Your task to perform on an android device: turn on wifi Image 0: 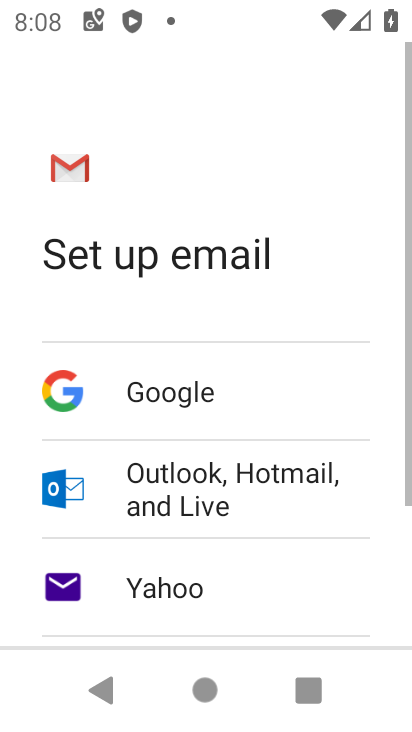
Step 0: press home button
Your task to perform on an android device: turn on wifi Image 1: 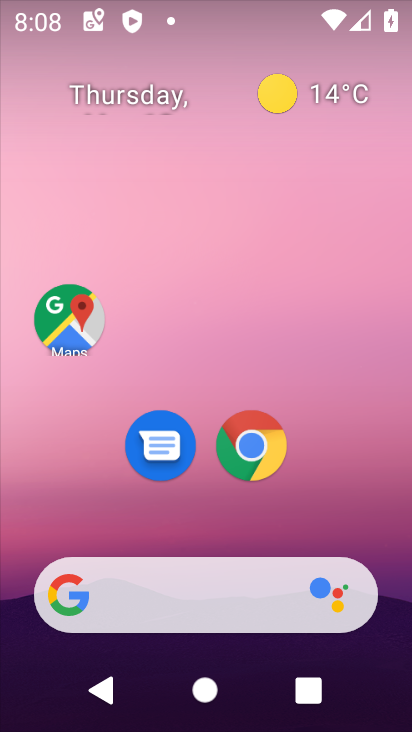
Step 1: drag from (231, 726) to (226, 157)
Your task to perform on an android device: turn on wifi Image 2: 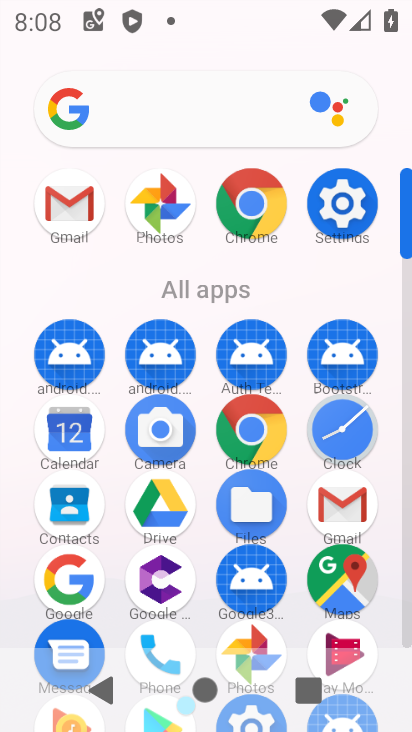
Step 2: click (344, 196)
Your task to perform on an android device: turn on wifi Image 3: 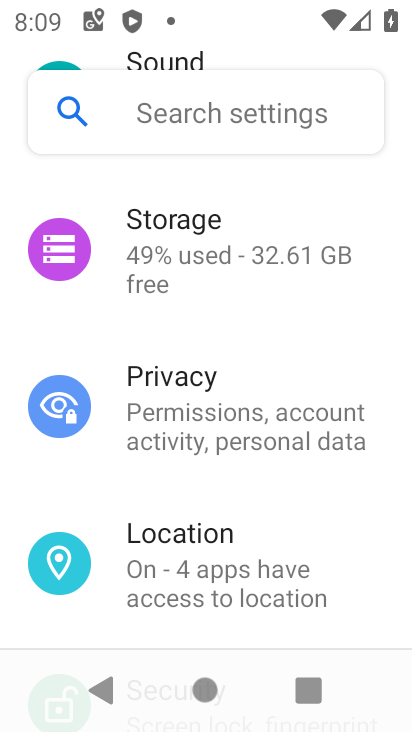
Step 3: drag from (320, 194) to (318, 595)
Your task to perform on an android device: turn on wifi Image 4: 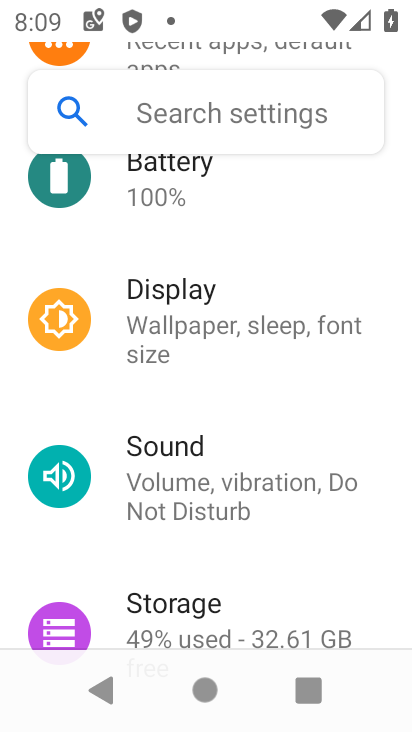
Step 4: drag from (294, 183) to (288, 625)
Your task to perform on an android device: turn on wifi Image 5: 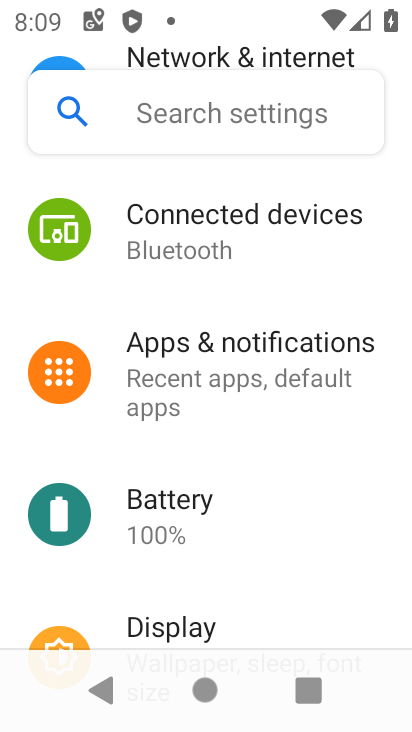
Step 5: drag from (302, 263) to (276, 662)
Your task to perform on an android device: turn on wifi Image 6: 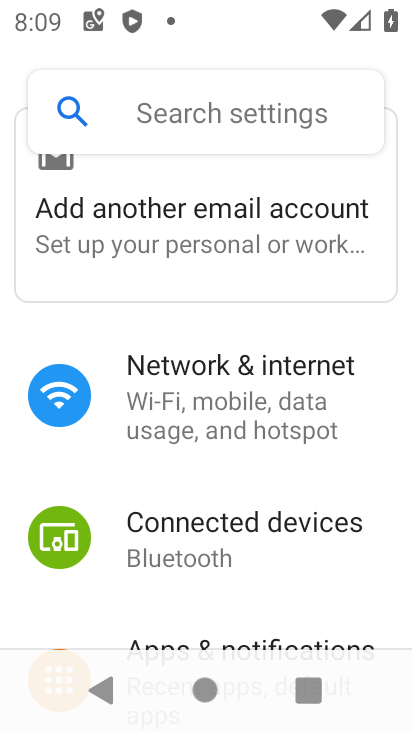
Step 6: click (178, 394)
Your task to perform on an android device: turn on wifi Image 7: 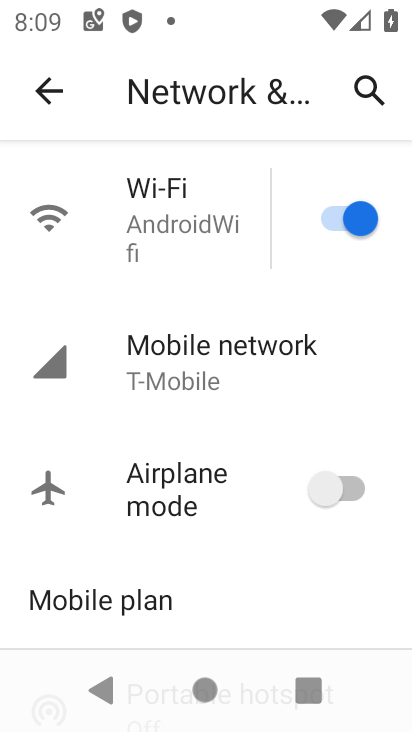
Step 7: task complete